Your task to perform on an android device: Go to battery settings Image 0: 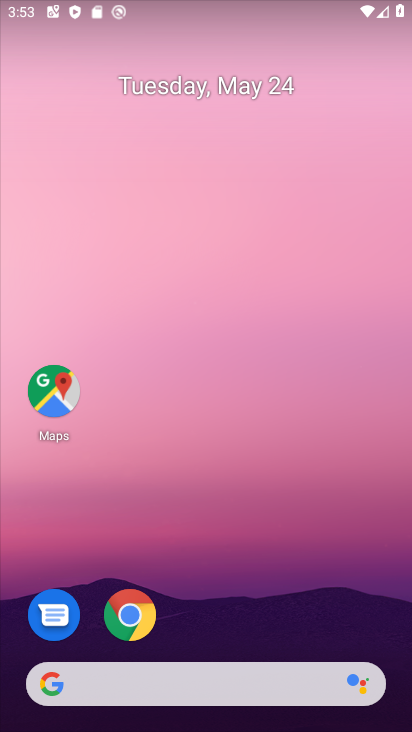
Step 0: drag from (219, 717) to (216, 192)
Your task to perform on an android device: Go to battery settings Image 1: 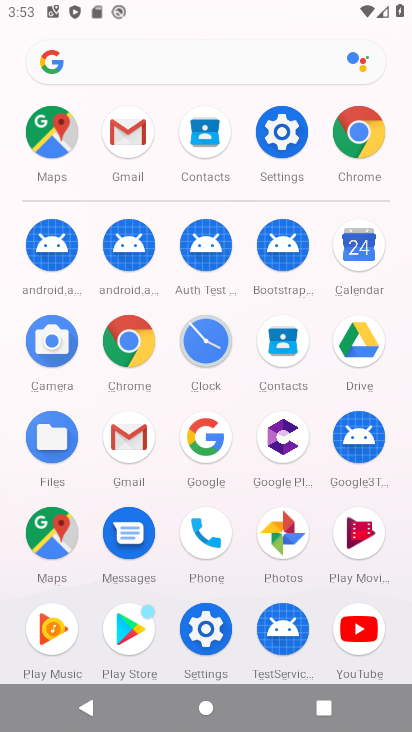
Step 1: click (282, 129)
Your task to perform on an android device: Go to battery settings Image 2: 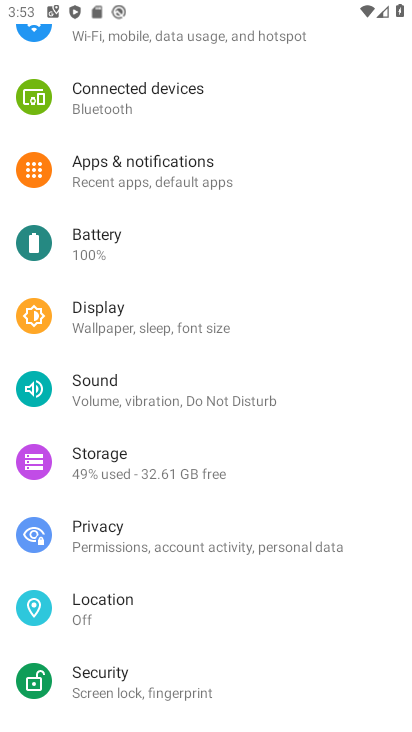
Step 2: click (85, 254)
Your task to perform on an android device: Go to battery settings Image 3: 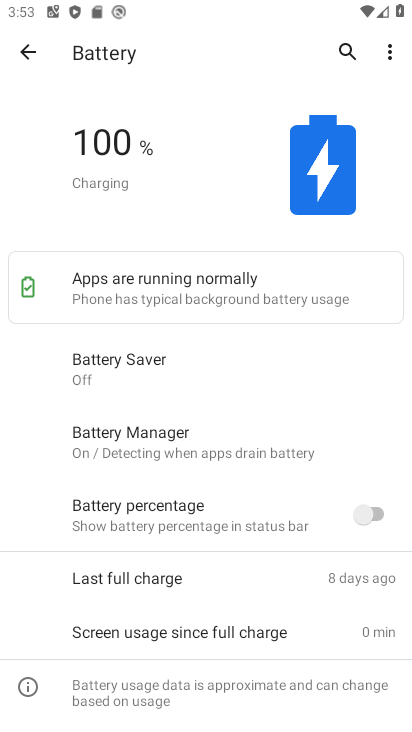
Step 3: task complete